Your task to perform on an android device: open app "HBO Max: Stream TV & Movies" (install if not already installed), go to login, and select forgot password Image 0: 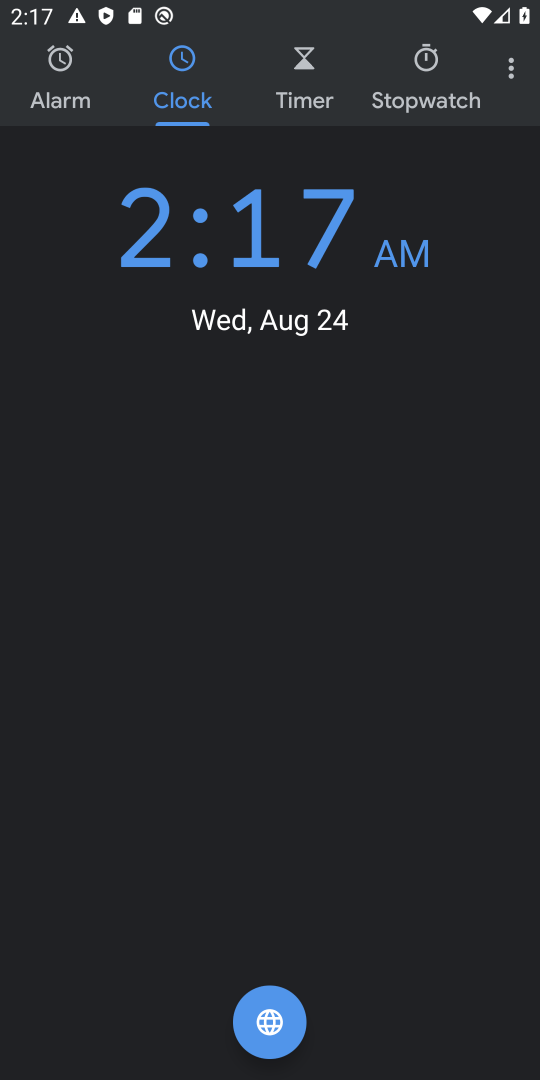
Step 0: press home button
Your task to perform on an android device: open app "HBO Max: Stream TV & Movies" (install if not already installed), go to login, and select forgot password Image 1: 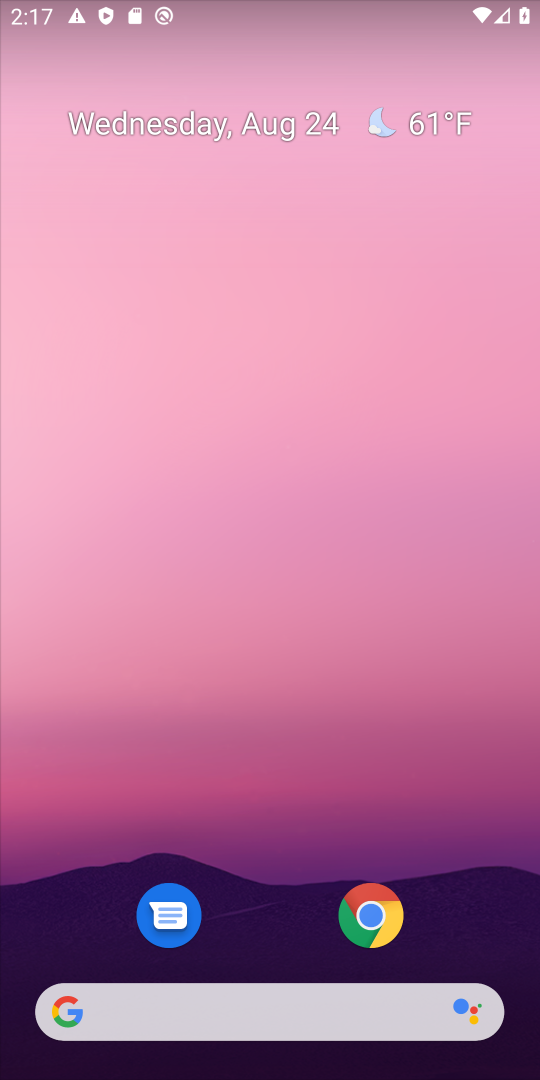
Step 1: drag from (291, 712) to (332, 230)
Your task to perform on an android device: open app "HBO Max: Stream TV & Movies" (install if not already installed), go to login, and select forgot password Image 2: 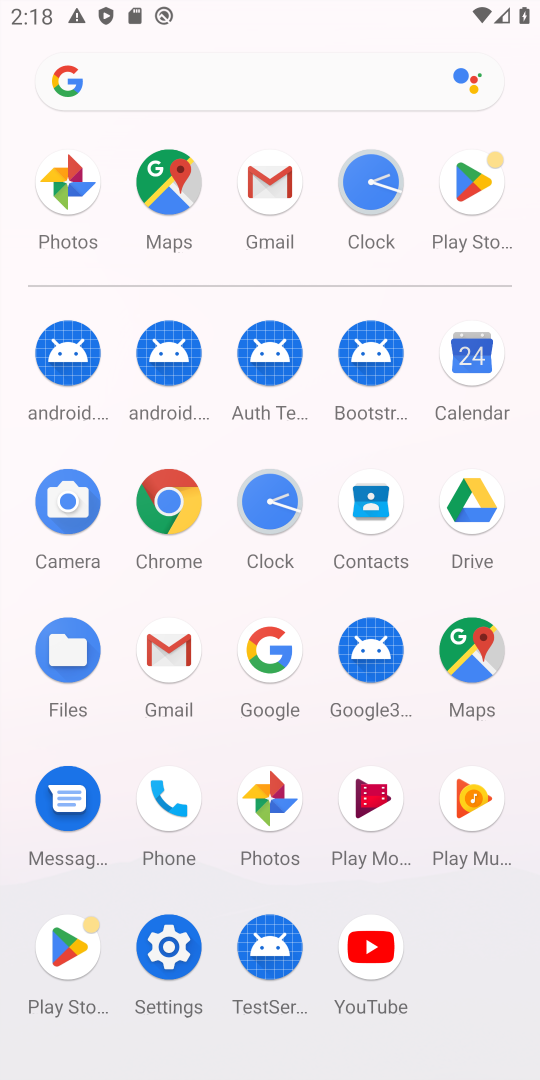
Step 2: click (455, 201)
Your task to perform on an android device: open app "HBO Max: Stream TV & Movies" (install if not already installed), go to login, and select forgot password Image 3: 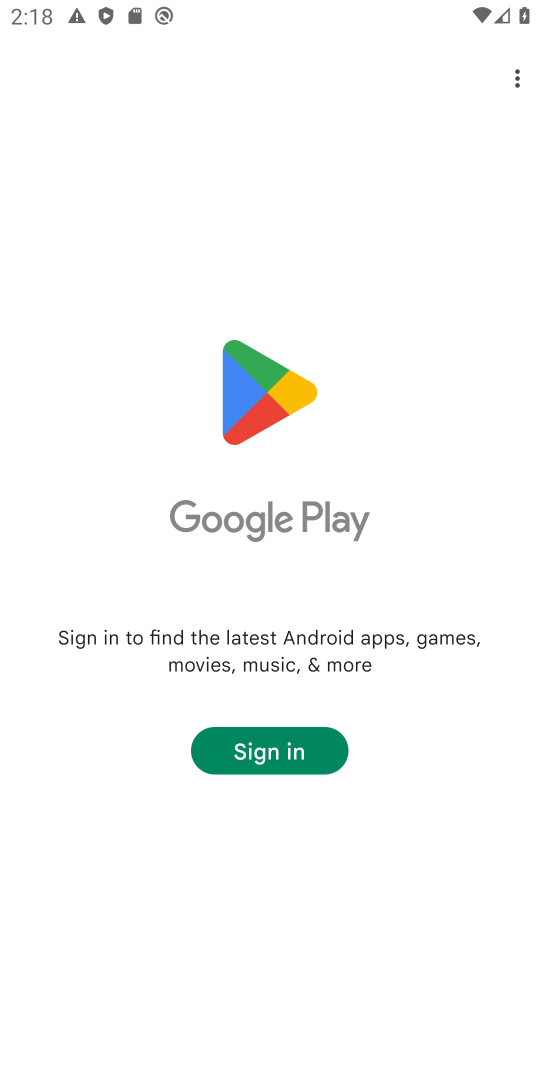
Step 3: task complete